Your task to perform on an android device: Open Google Chrome Image 0: 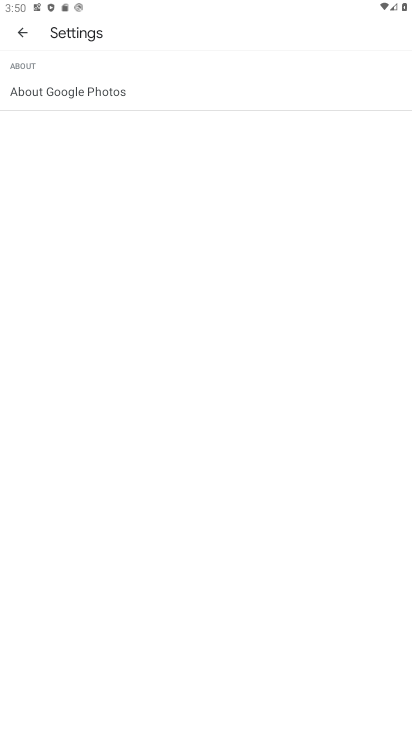
Step 0: press home button
Your task to perform on an android device: Open Google Chrome Image 1: 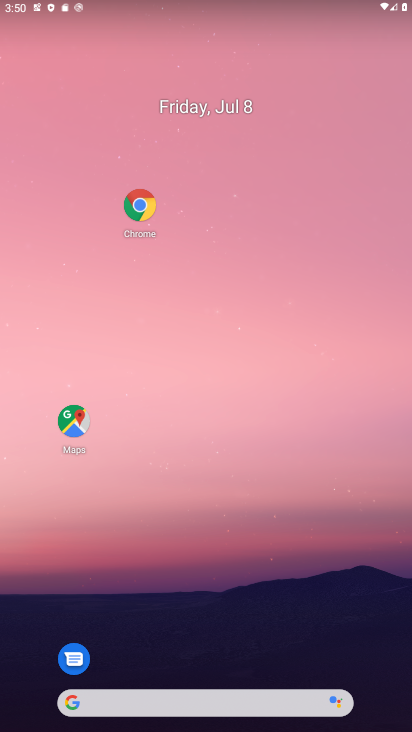
Step 1: click (150, 192)
Your task to perform on an android device: Open Google Chrome Image 2: 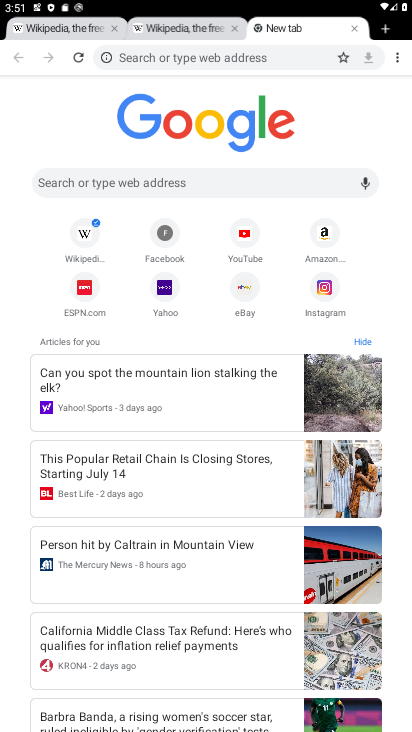
Step 2: task complete